Your task to perform on an android device: Do I have any events tomorrow? Image 0: 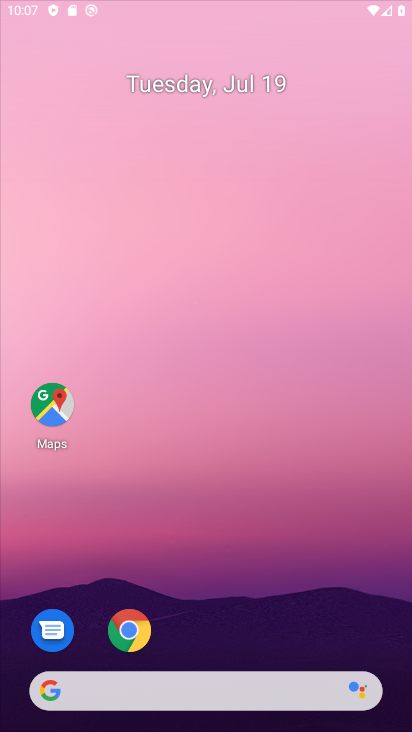
Step 0: press home button
Your task to perform on an android device: Do I have any events tomorrow? Image 1: 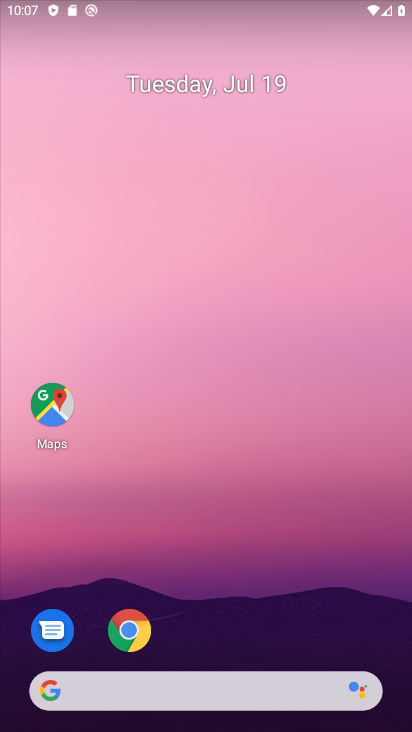
Step 1: drag from (241, 643) to (199, 96)
Your task to perform on an android device: Do I have any events tomorrow? Image 2: 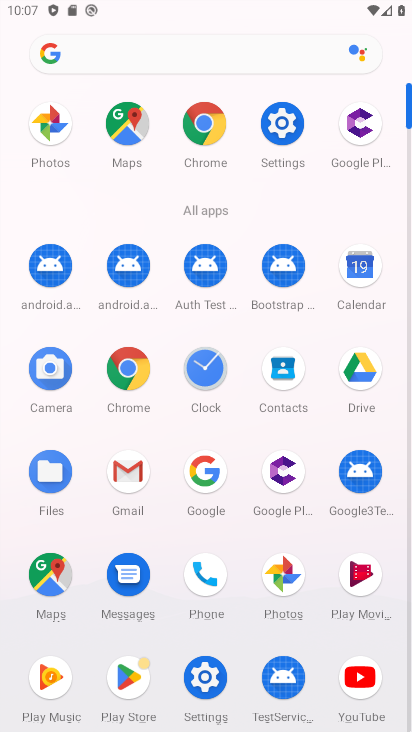
Step 2: click (359, 276)
Your task to perform on an android device: Do I have any events tomorrow? Image 3: 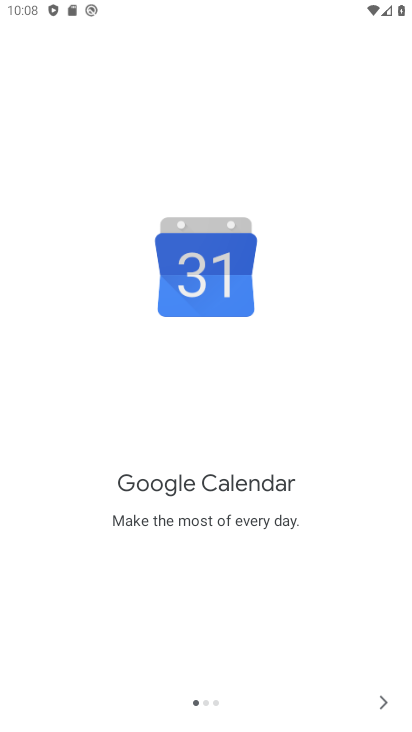
Step 3: click (383, 704)
Your task to perform on an android device: Do I have any events tomorrow? Image 4: 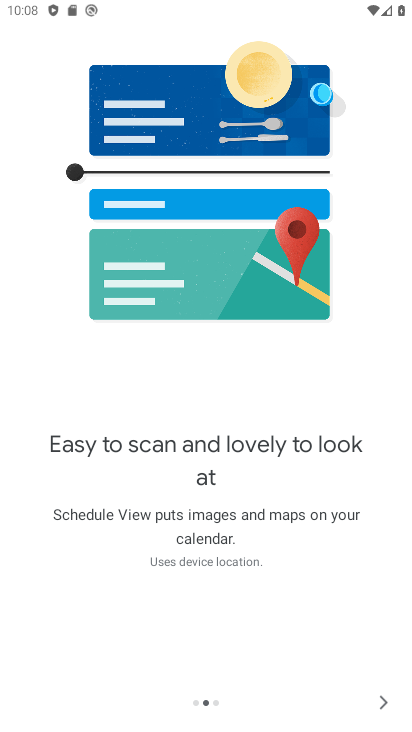
Step 4: click (383, 704)
Your task to perform on an android device: Do I have any events tomorrow? Image 5: 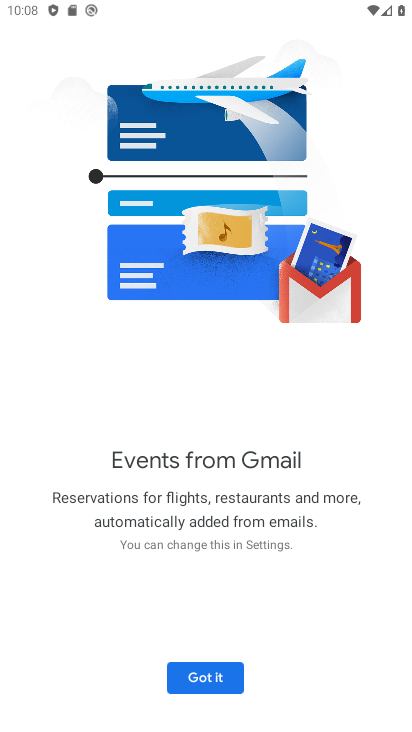
Step 5: click (216, 682)
Your task to perform on an android device: Do I have any events tomorrow? Image 6: 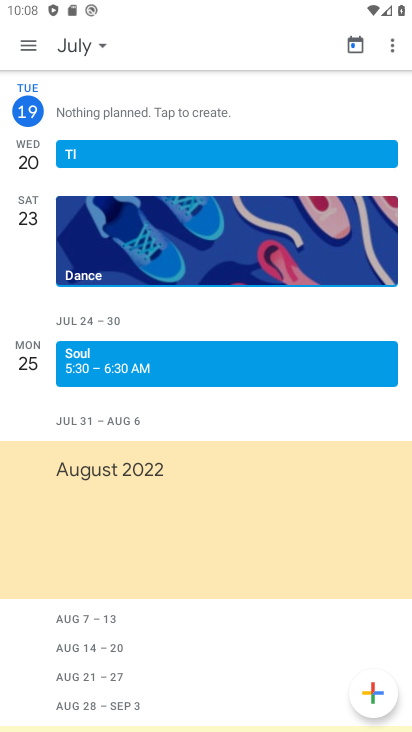
Step 6: click (92, 44)
Your task to perform on an android device: Do I have any events tomorrow? Image 7: 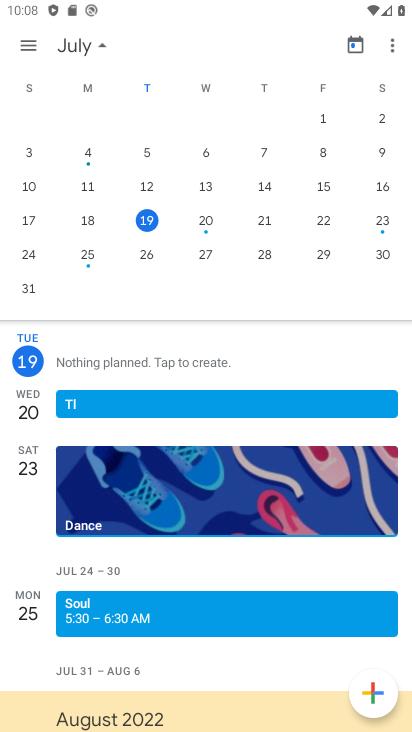
Step 7: click (214, 221)
Your task to perform on an android device: Do I have any events tomorrow? Image 8: 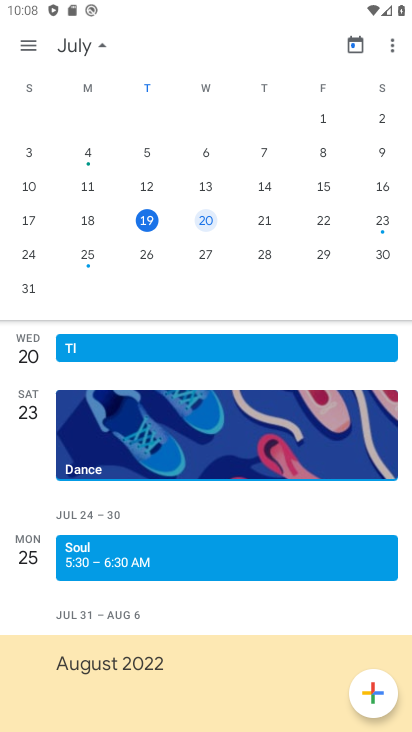
Step 8: task complete